Your task to perform on an android device: install app "PUBG MOBILE" Image 0: 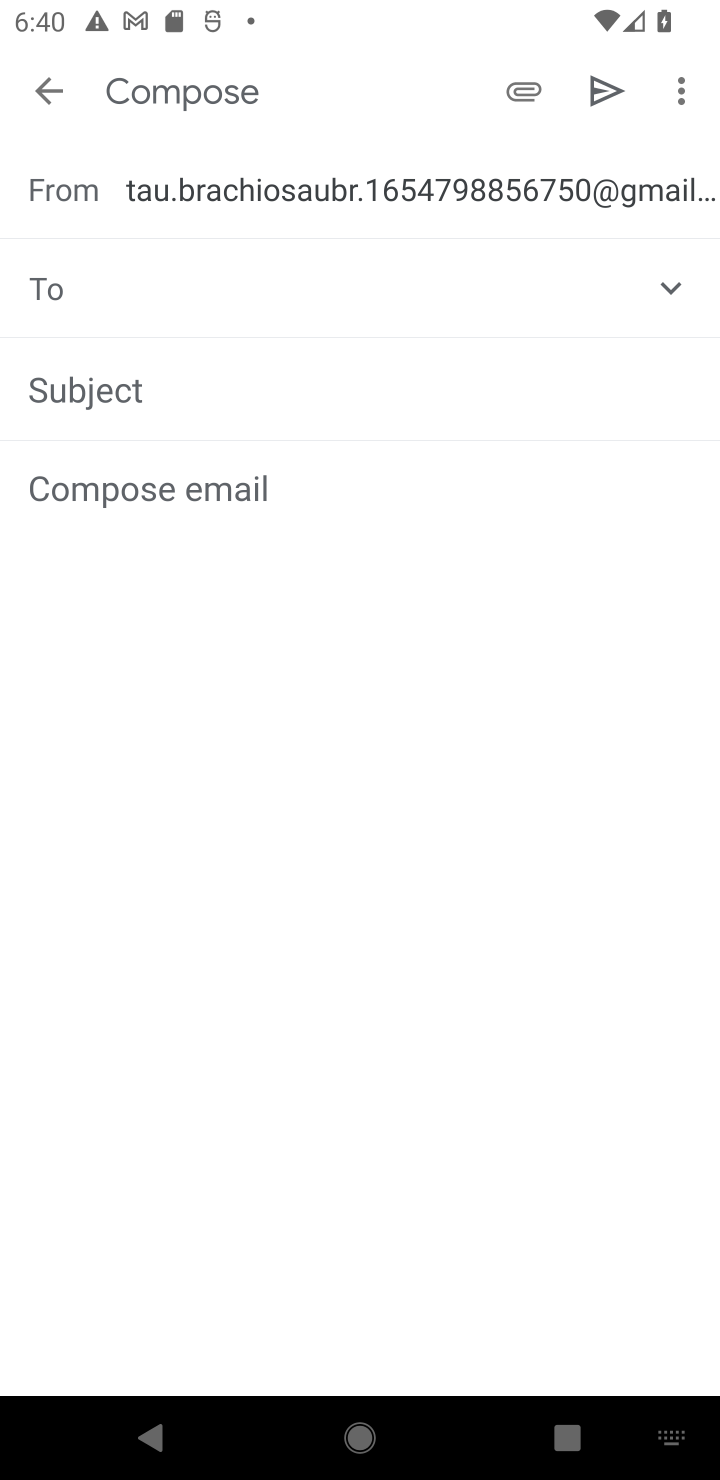
Step 0: press home button
Your task to perform on an android device: install app "PUBG MOBILE" Image 1: 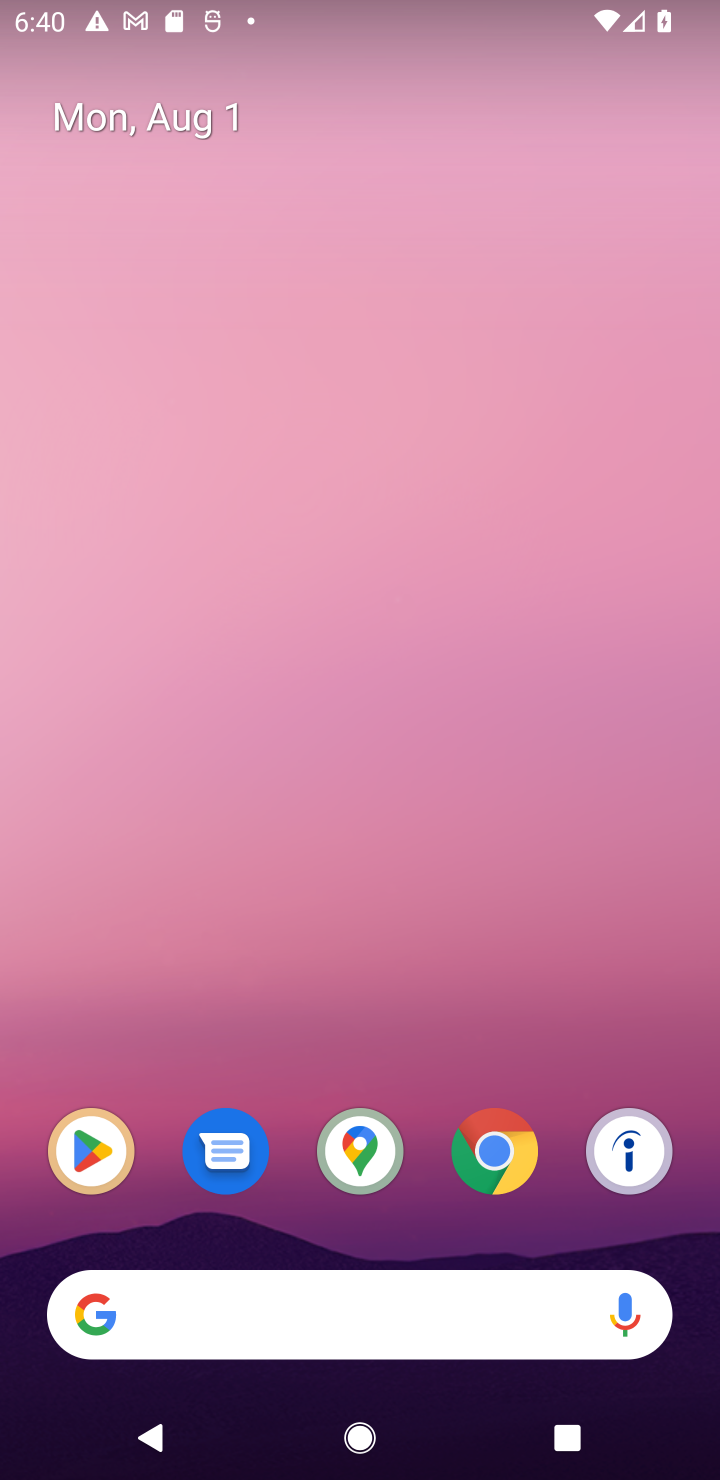
Step 1: drag from (489, 1304) to (488, 553)
Your task to perform on an android device: install app "PUBG MOBILE" Image 2: 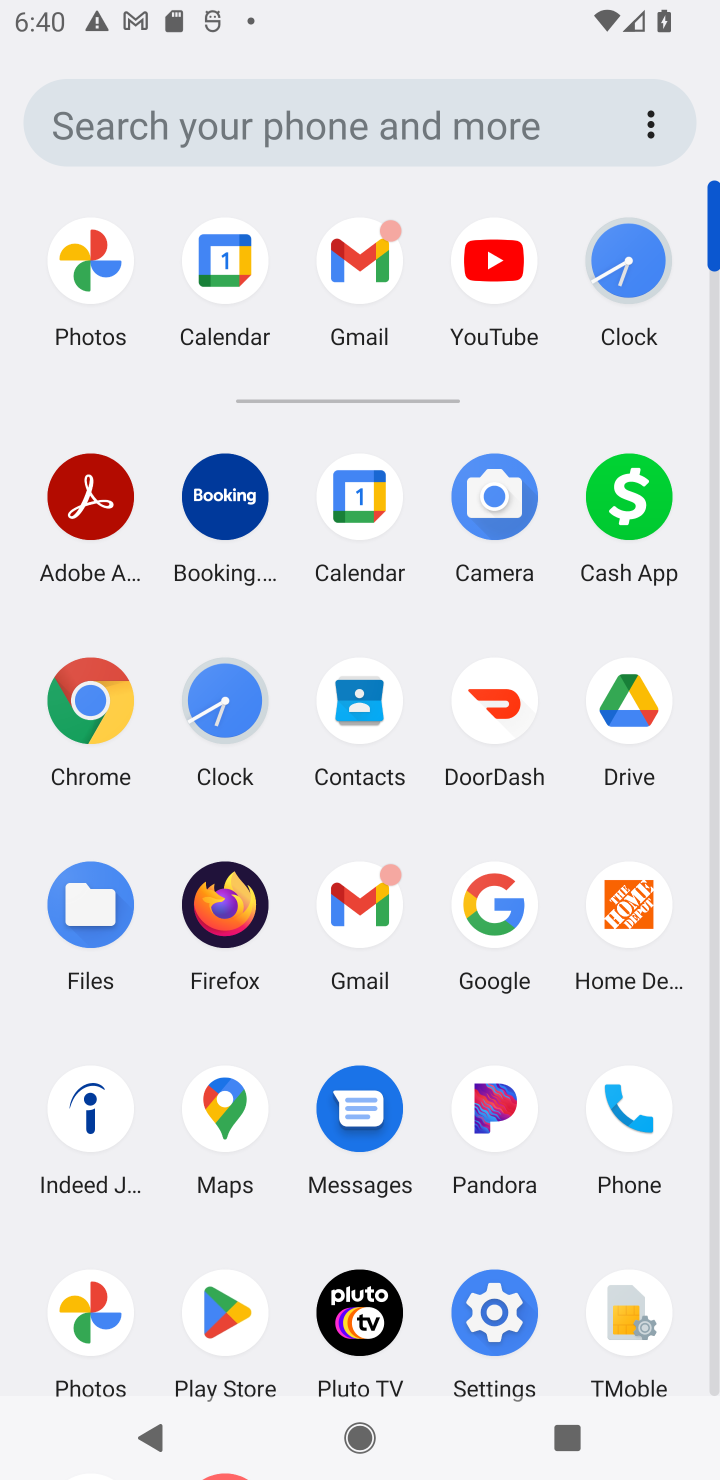
Step 2: click (207, 1309)
Your task to perform on an android device: install app "PUBG MOBILE" Image 3: 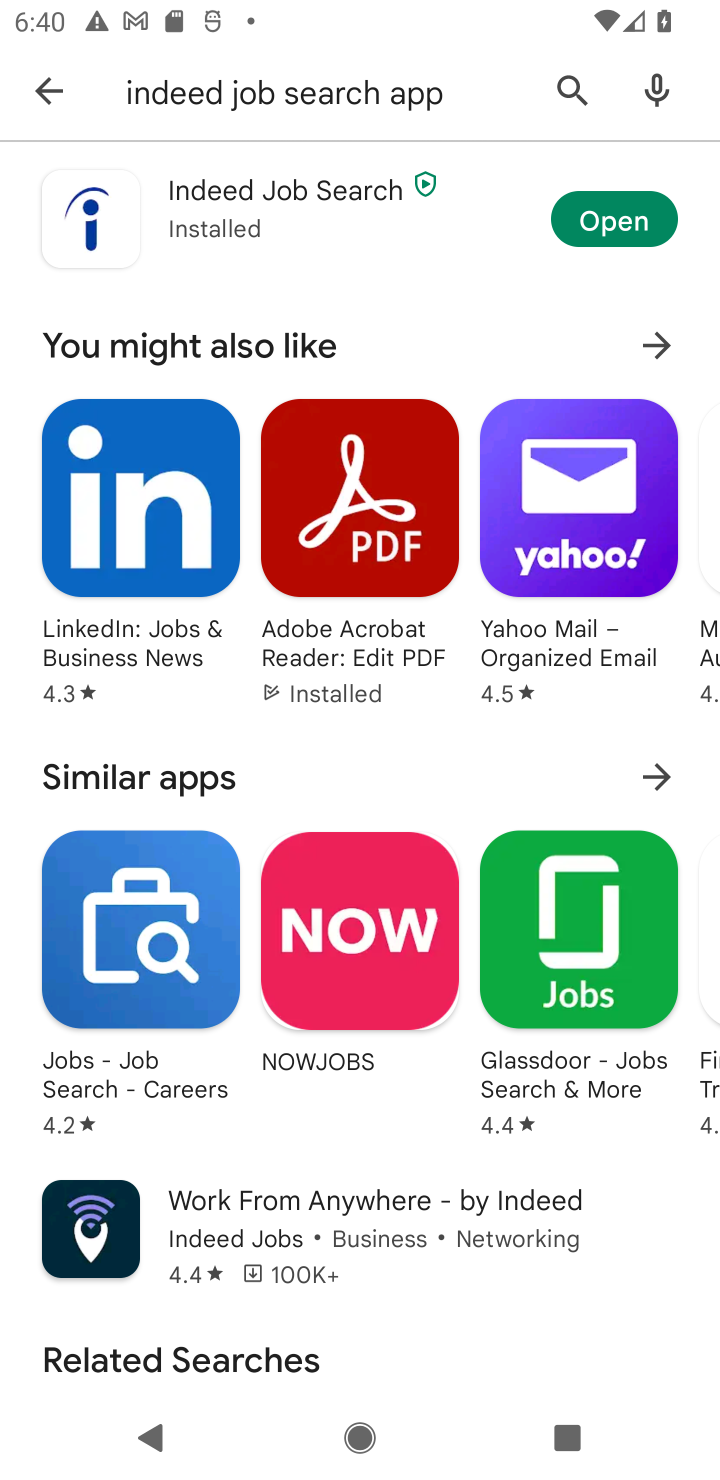
Step 3: click (559, 92)
Your task to perform on an android device: install app "PUBG MOBILE" Image 4: 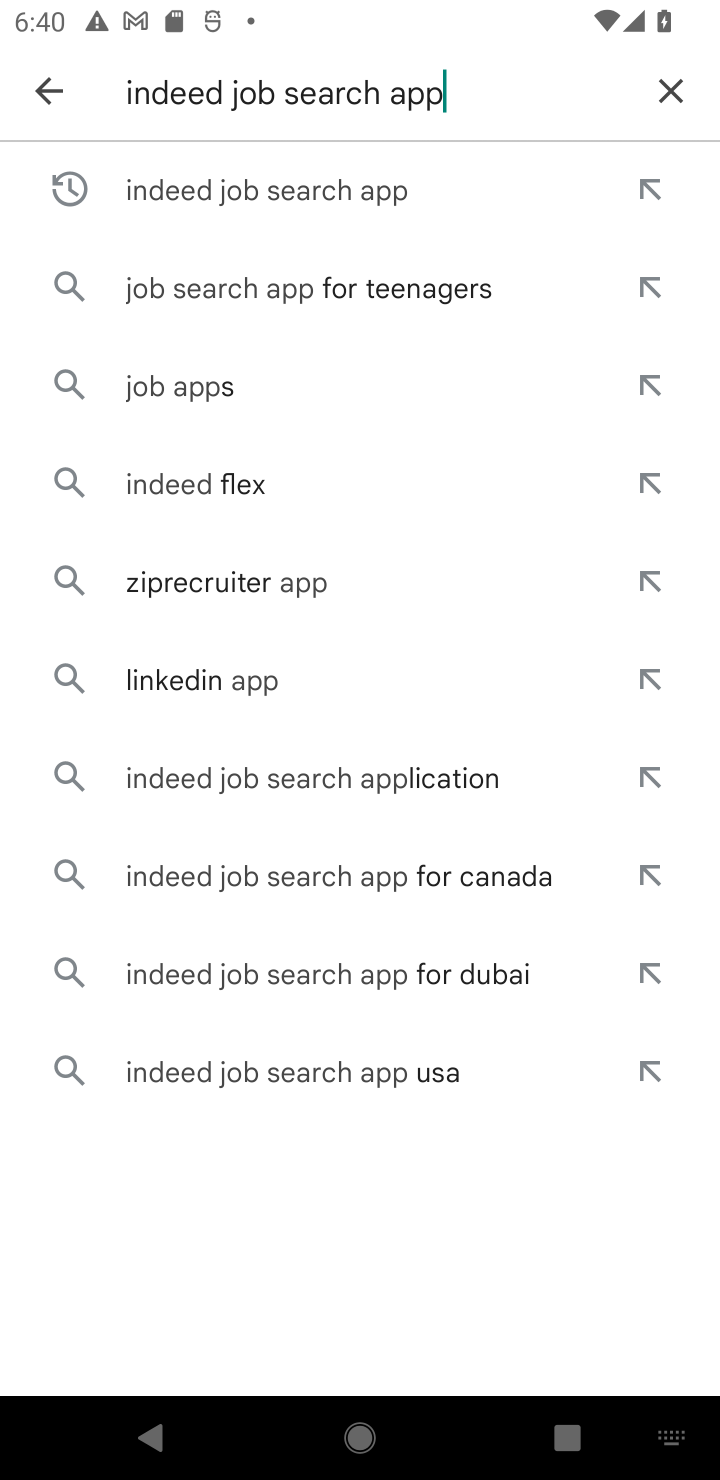
Step 4: click (668, 92)
Your task to perform on an android device: install app "PUBG MOBILE" Image 5: 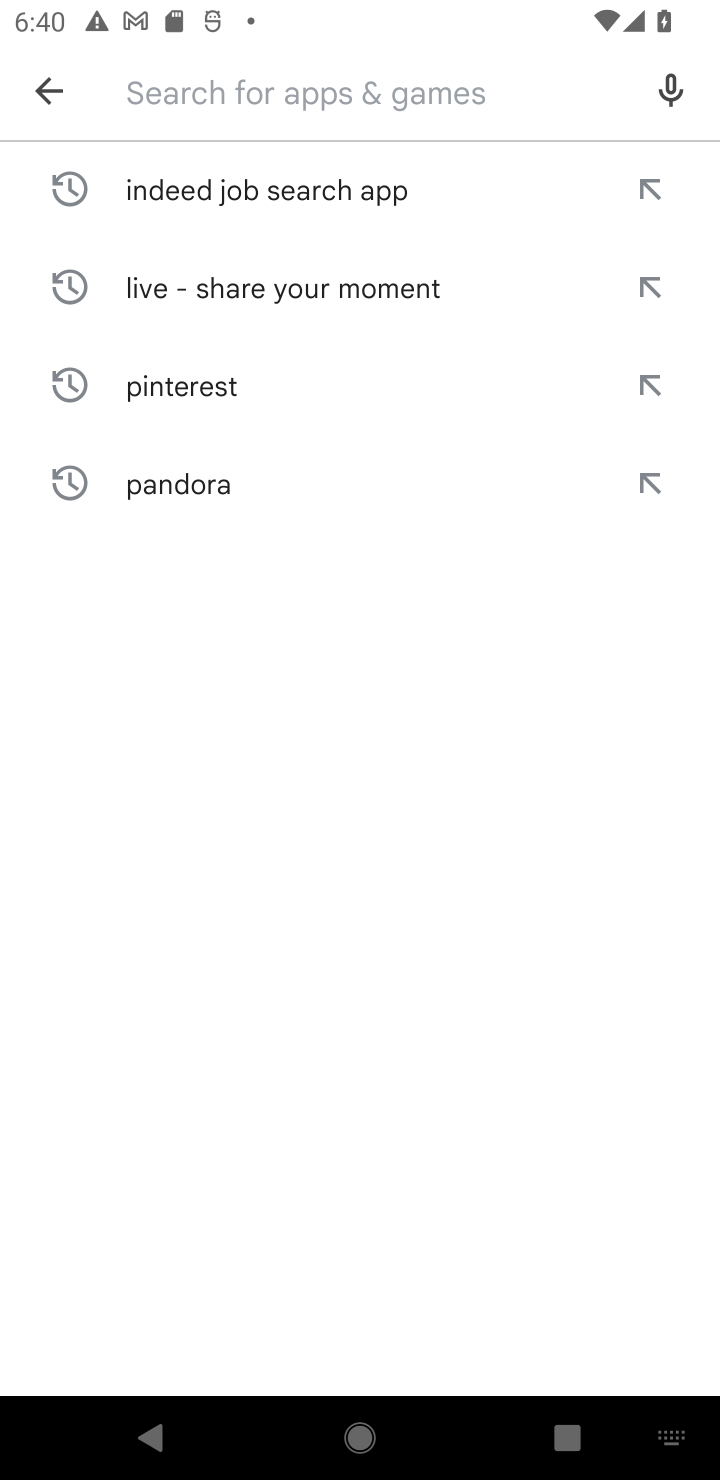
Step 5: type "pubg mobile"
Your task to perform on an android device: install app "PUBG MOBILE" Image 6: 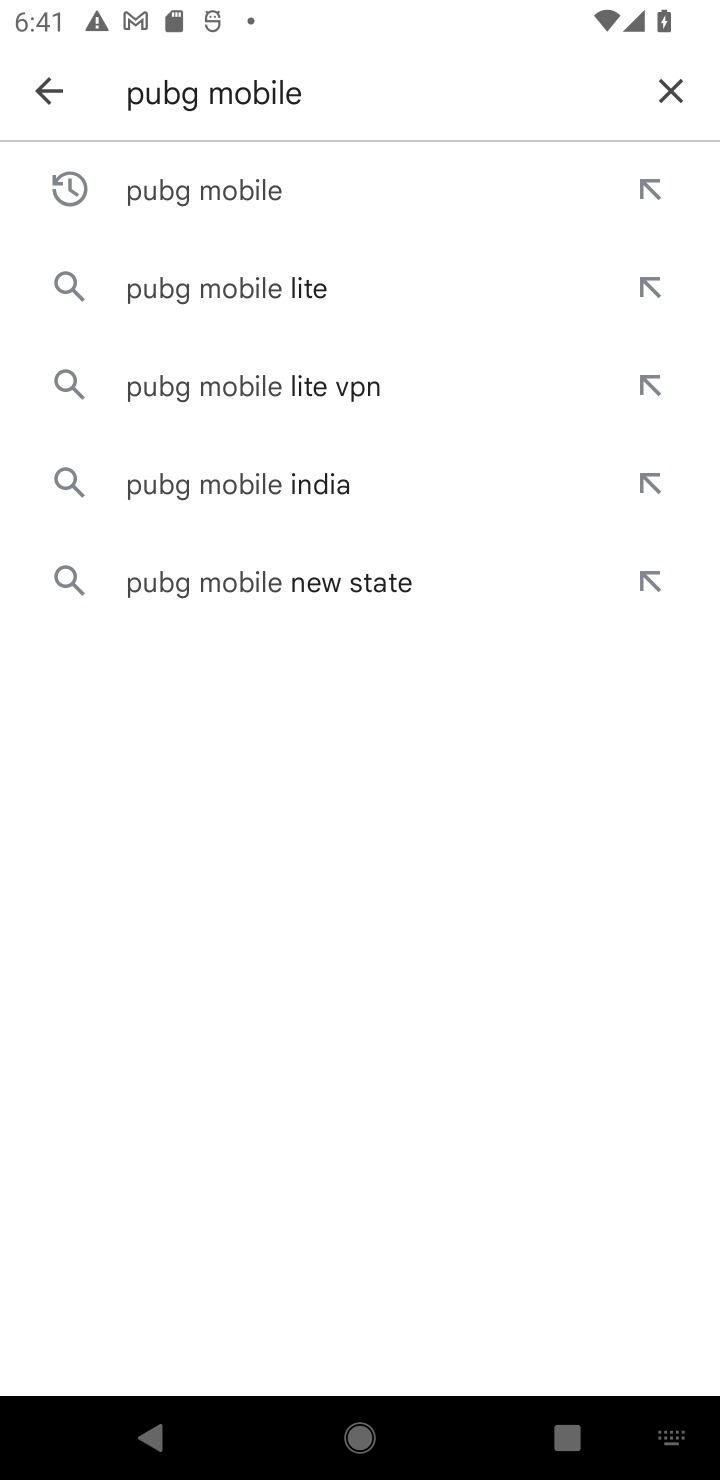
Step 6: click (234, 158)
Your task to perform on an android device: install app "PUBG MOBILE" Image 7: 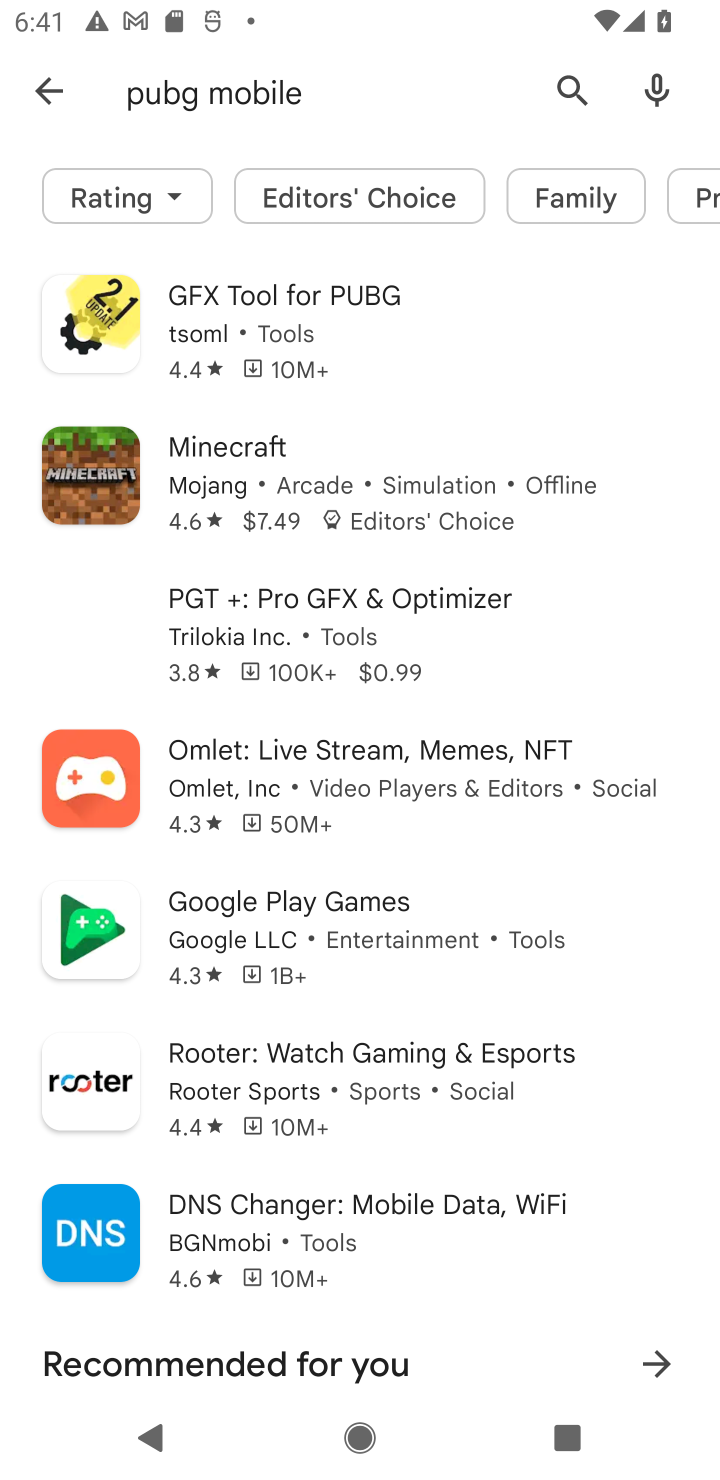
Step 7: task complete